Your task to perform on an android device: install app "Upside-Cash back on gas & food" Image 0: 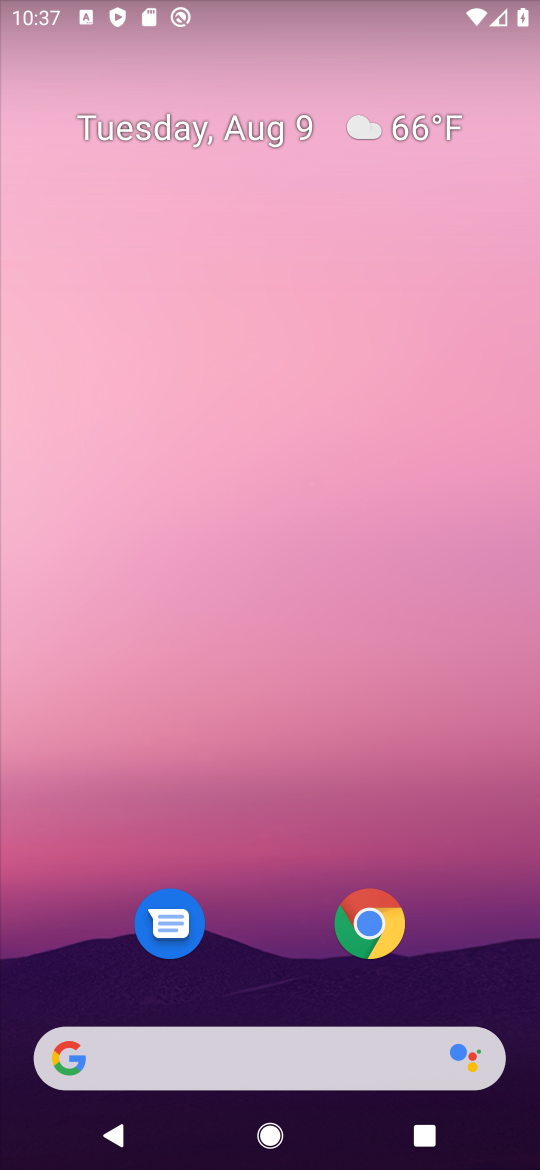
Step 0: drag from (277, 970) to (267, 101)
Your task to perform on an android device: install app "Upside-Cash back on gas & food" Image 1: 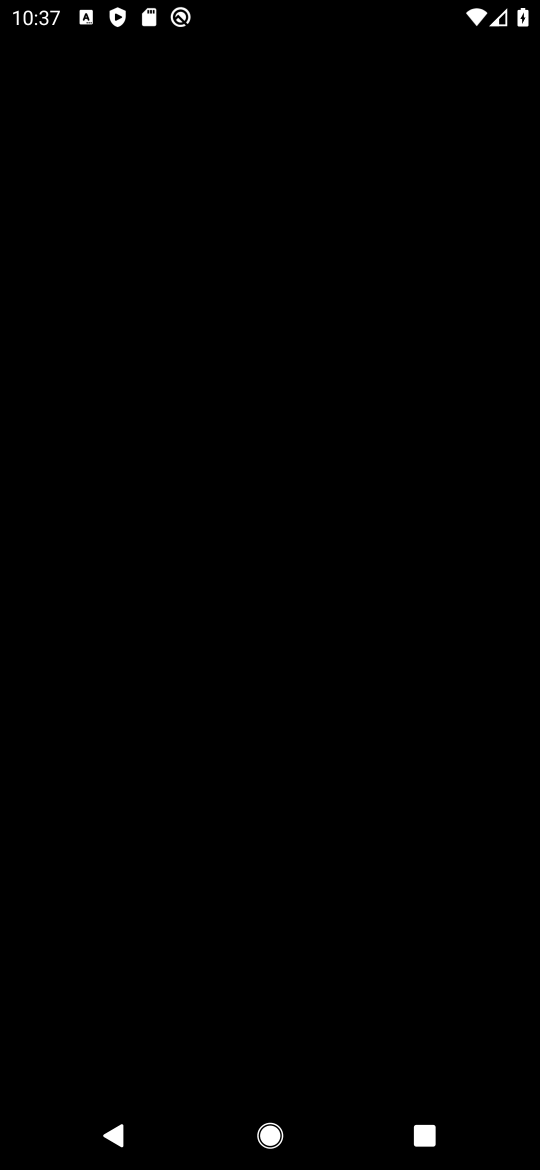
Step 1: press home button
Your task to perform on an android device: install app "Upside-Cash back on gas & food" Image 2: 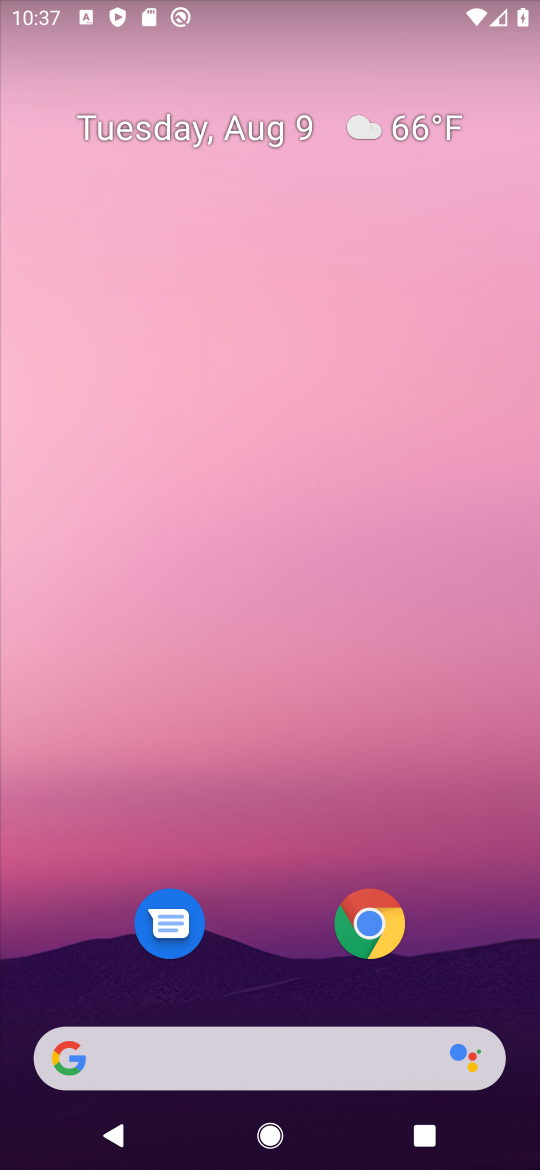
Step 2: press home button
Your task to perform on an android device: install app "Upside-Cash back on gas & food" Image 3: 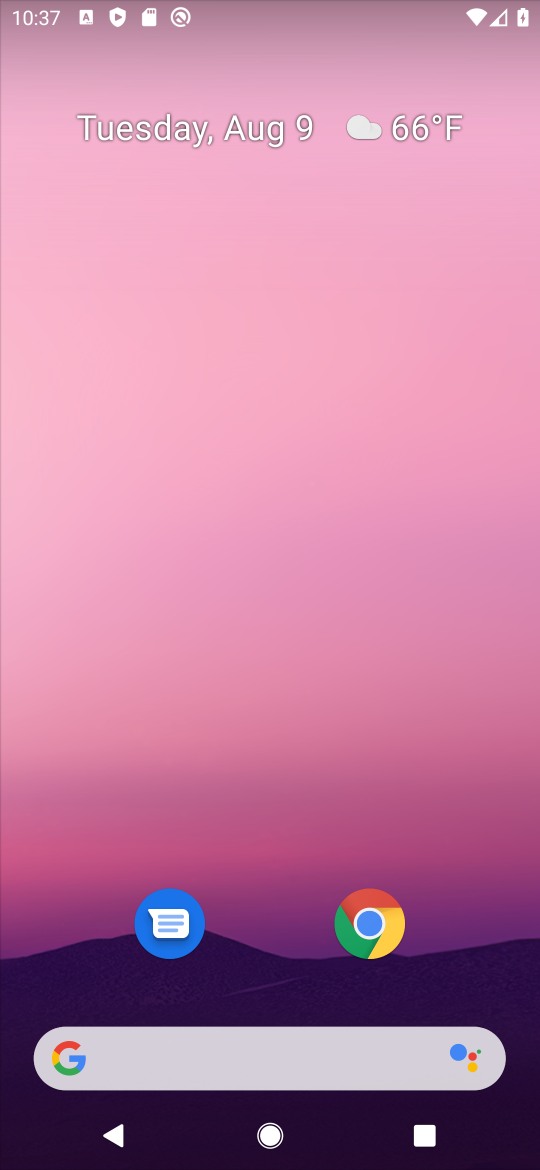
Step 3: drag from (285, 992) to (353, 58)
Your task to perform on an android device: install app "Upside-Cash back on gas & food" Image 4: 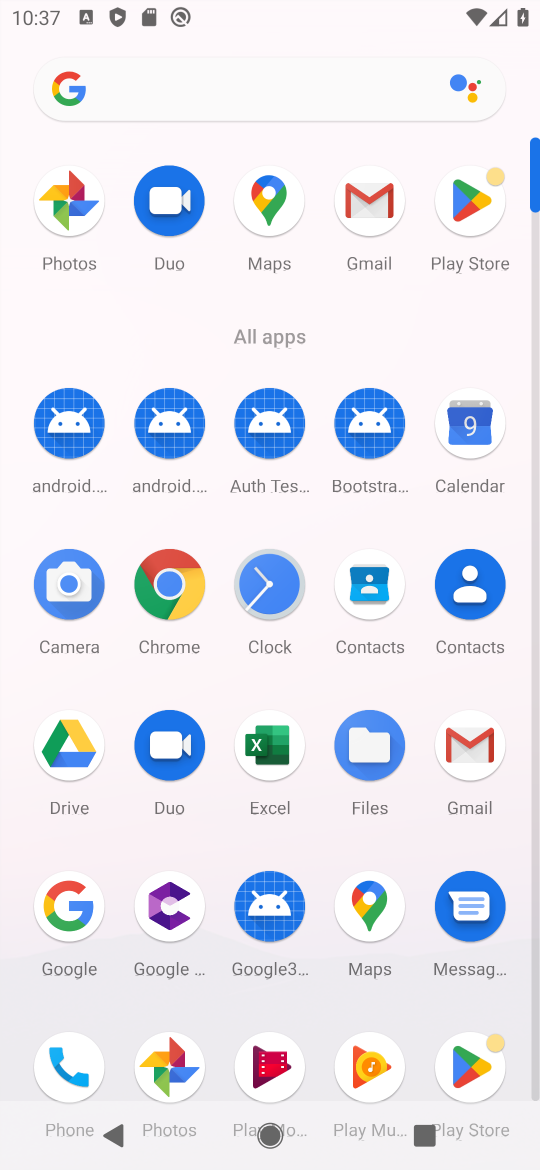
Step 4: click (471, 201)
Your task to perform on an android device: install app "Upside-Cash back on gas & food" Image 5: 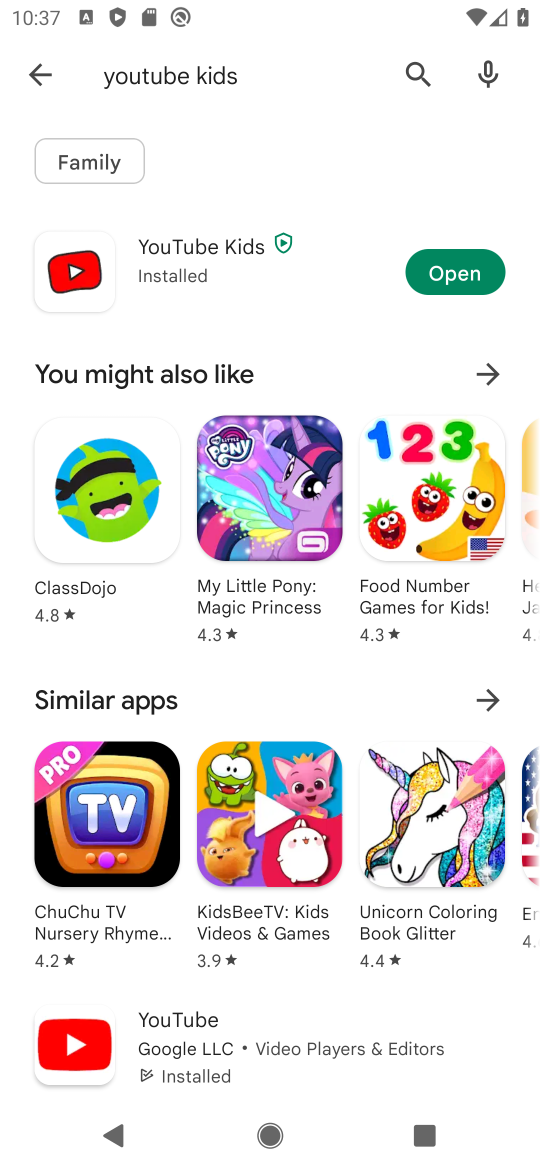
Step 5: click (430, 67)
Your task to perform on an android device: install app "Upside-Cash back on gas & food" Image 6: 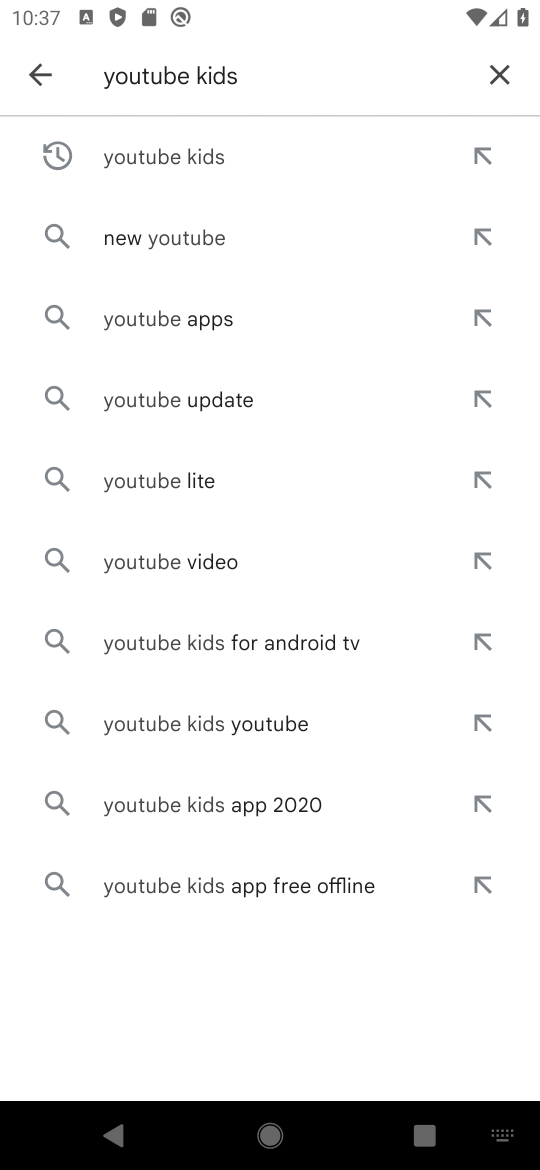
Step 6: click (500, 68)
Your task to perform on an android device: install app "Upside-Cash back on gas & food" Image 7: 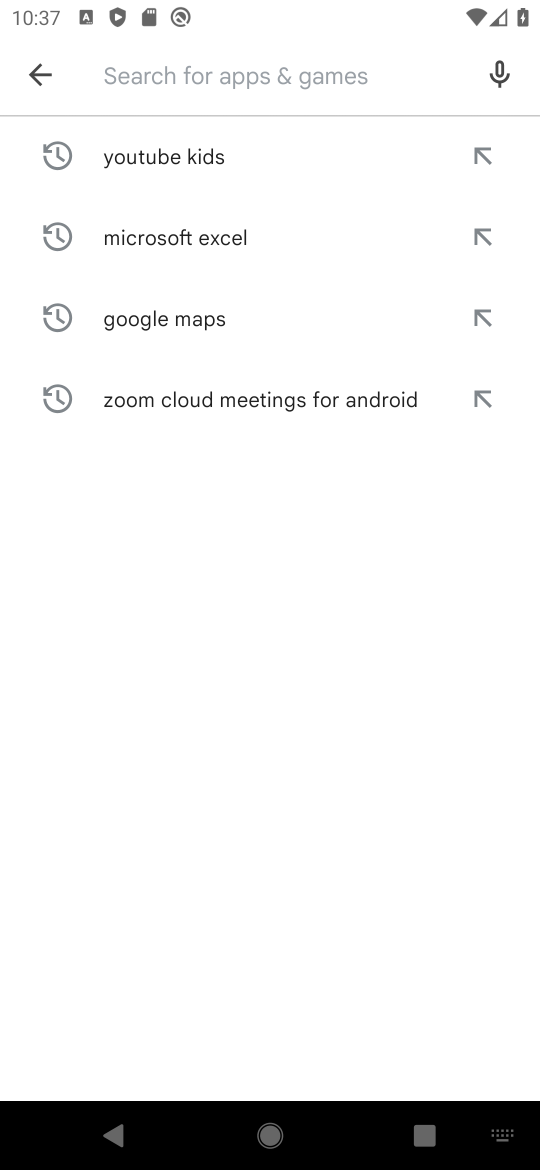
Step 7: type "Upside-Cash back on gas & food"
Your task to perform on an android device: install app "Upside-Cash back on gas & food" Image 8: 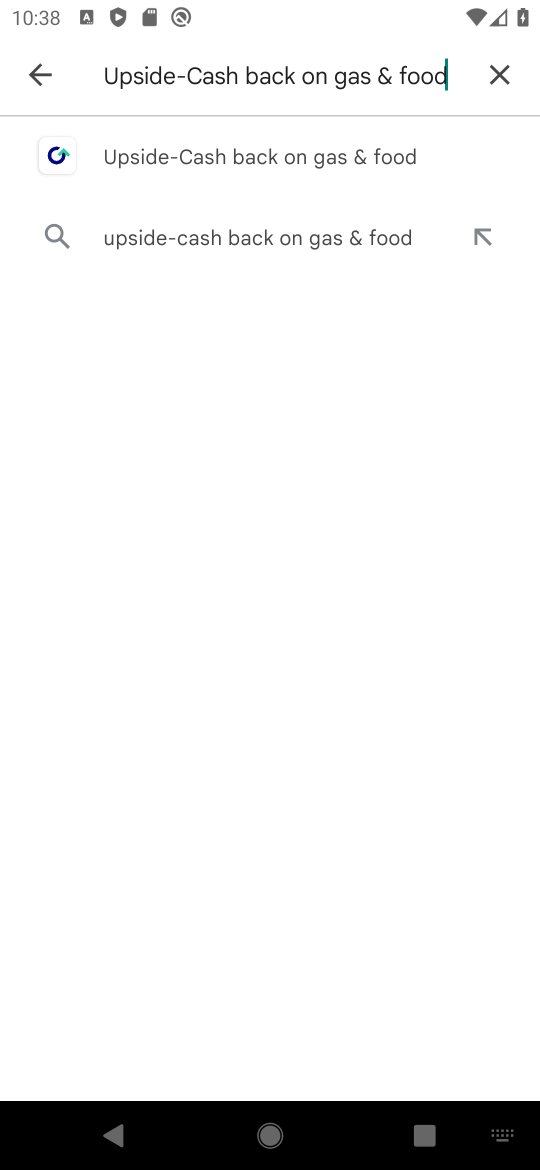
Step 8: click (356, 153)
Your task to perform on an android device: install app "Upside-Cash back on gas & food" Image 9: 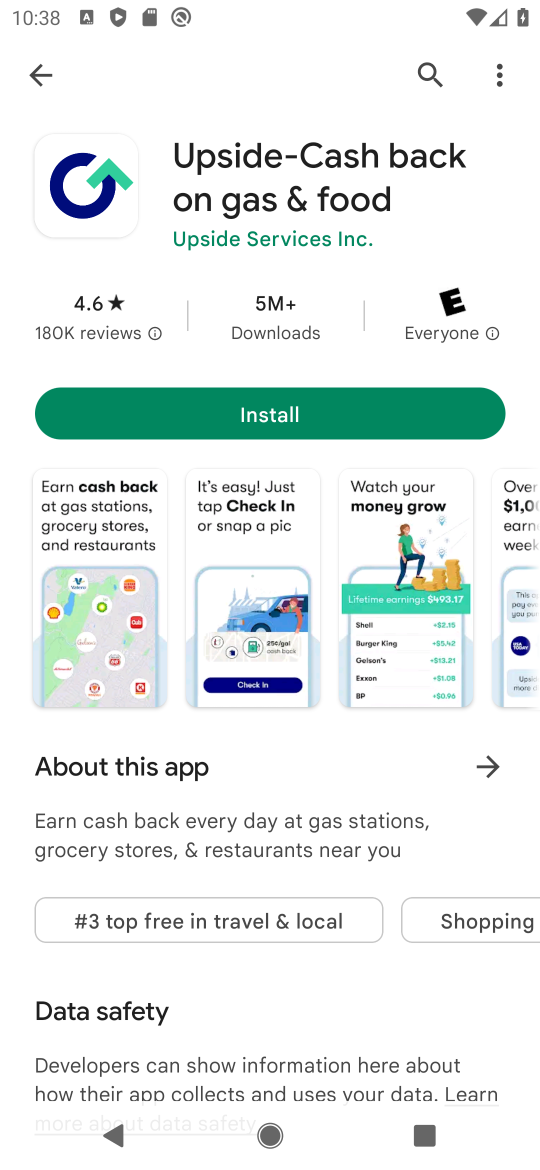
Step 9: click (276, 413)
Your task to perform on an android device: install app "Upside-Cash back on gas & food" Image 10: 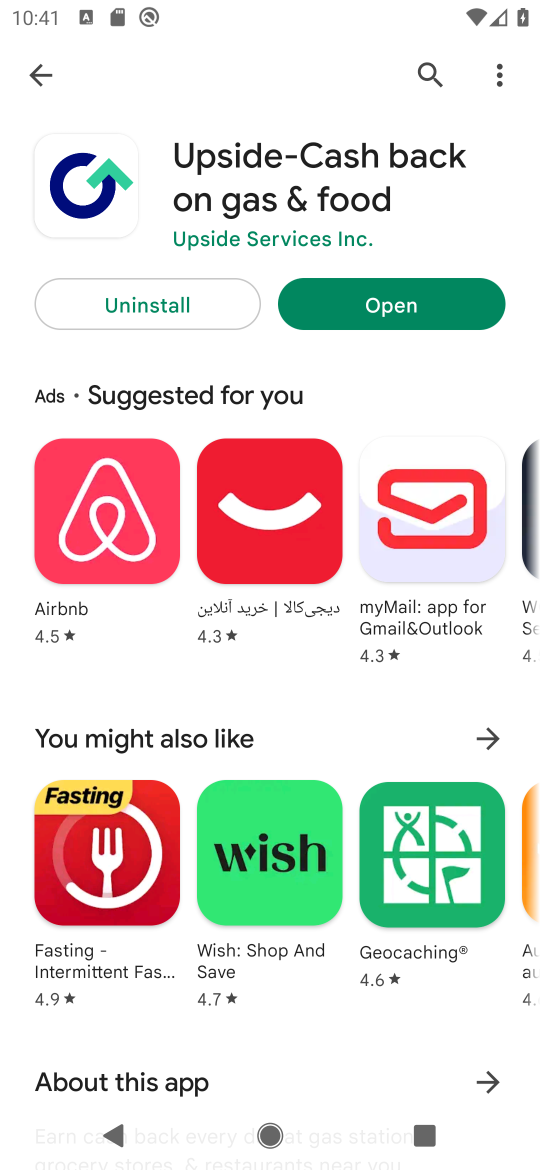
Step 10: click (418, 306)
Your task to perform on an android device: install app "Upside-Cash back on gas & food" Image 11: 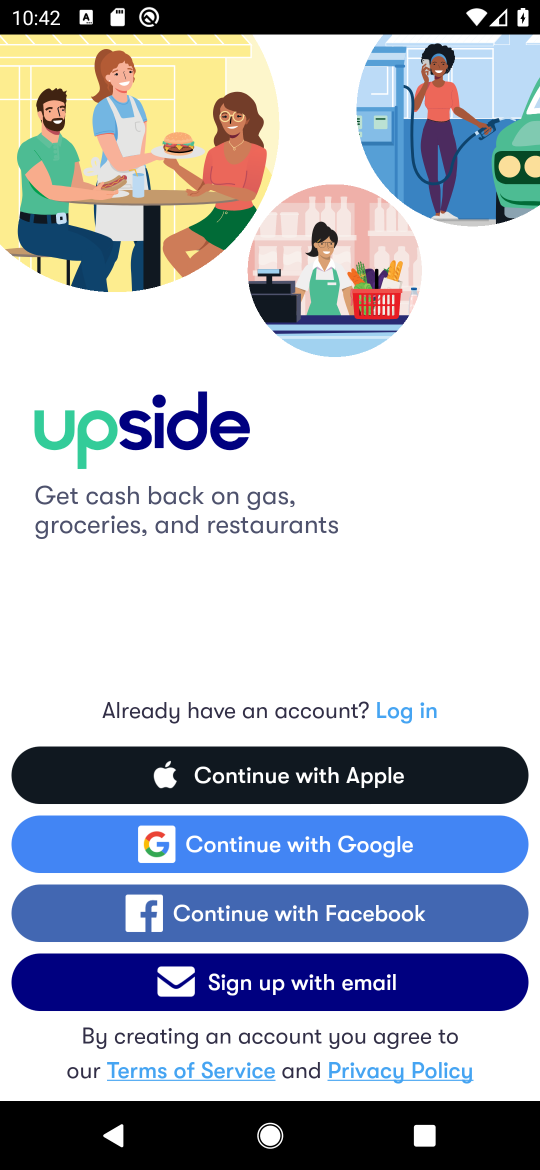
Step 11: click (260, 855)
Your task to perform on an android device: install app "Upside-Cash back on gas & food" Image 12: 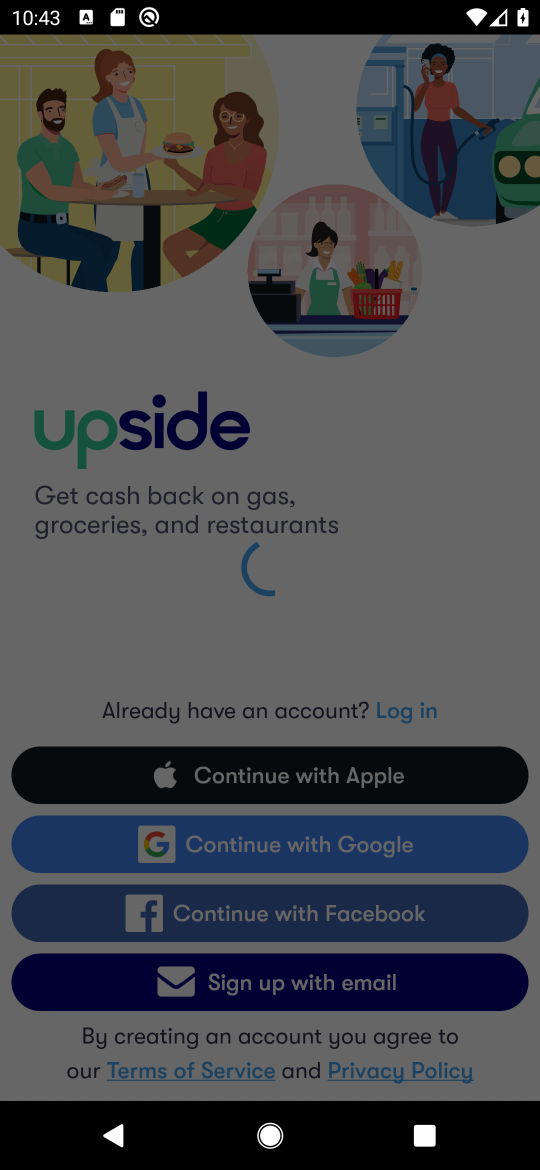
Step 12: task complete